Your task to perform on an android device: open app "Microsoft Excel" Image 0: 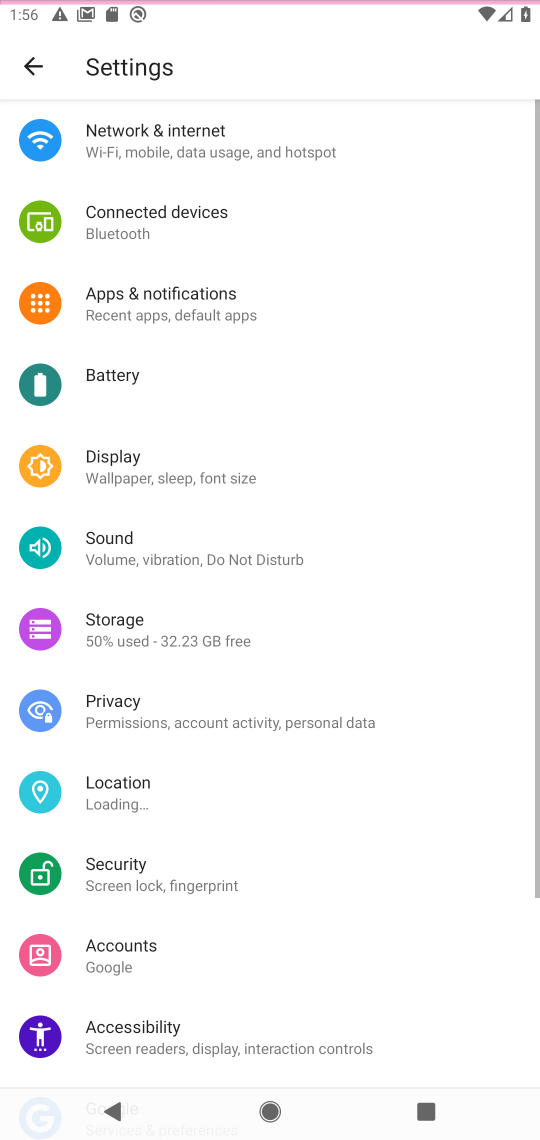
Step 0: click (312, 200)
Your task to perform on an android device: open app "Microsoft Excel" Image 1: 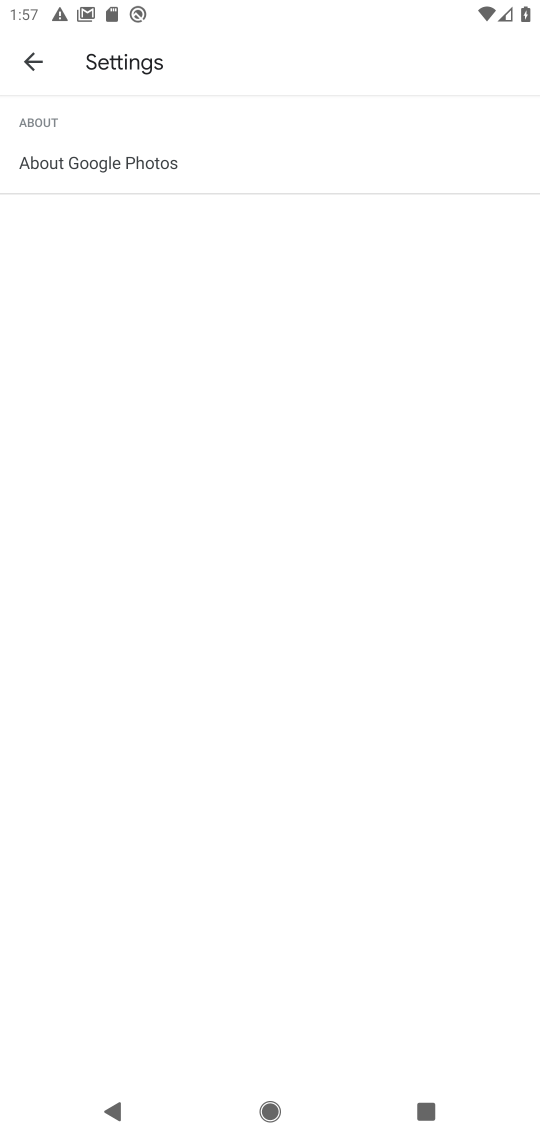
Step 1: press home button
Your task to perform on an android device: open app "Microsoft Excel" Image 2: 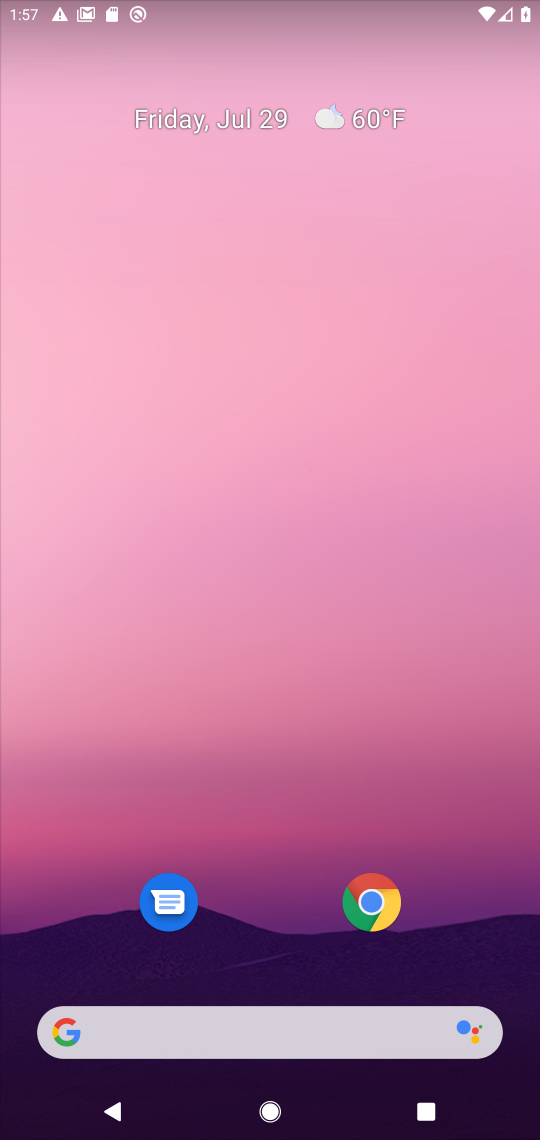
Step 2: drag from (268, 1017) to (277, 249)
Your task to perform on an android device: open app "Microsoft Excel" Image 3: 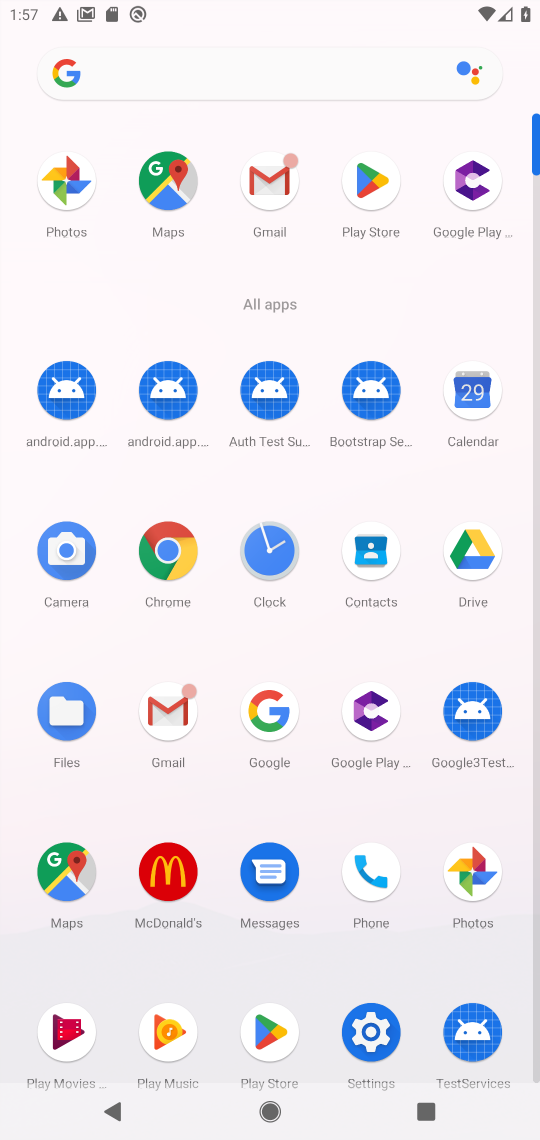
Step 3: click (370, 181)
Your task to perform on an android device: open app "Microsoft Excel" Image 4: 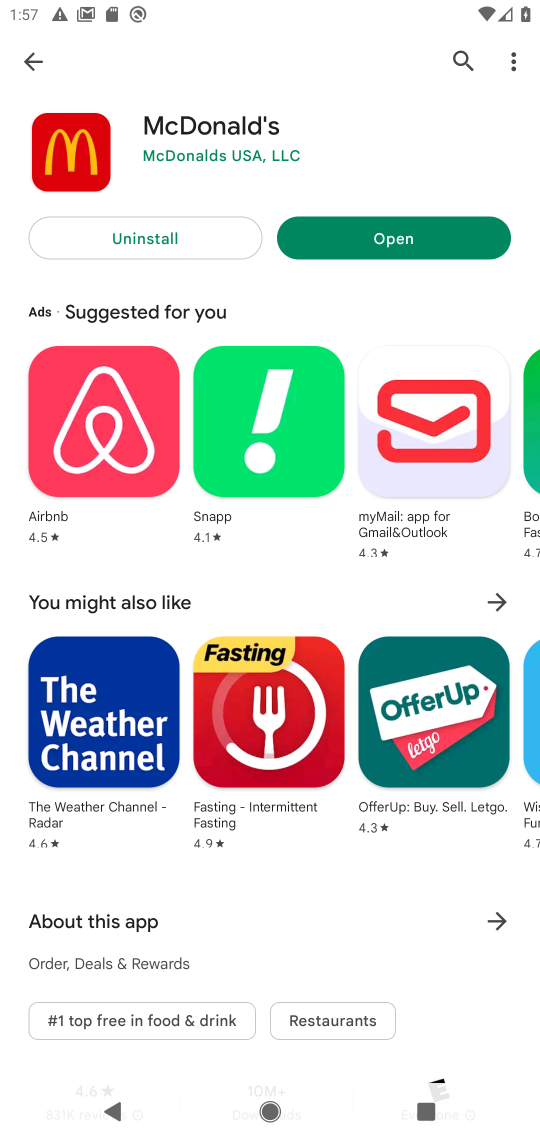
Step 4: click (36, 50)
Your task to perform on an android device: open app "Microsoft Excel" Image 5: 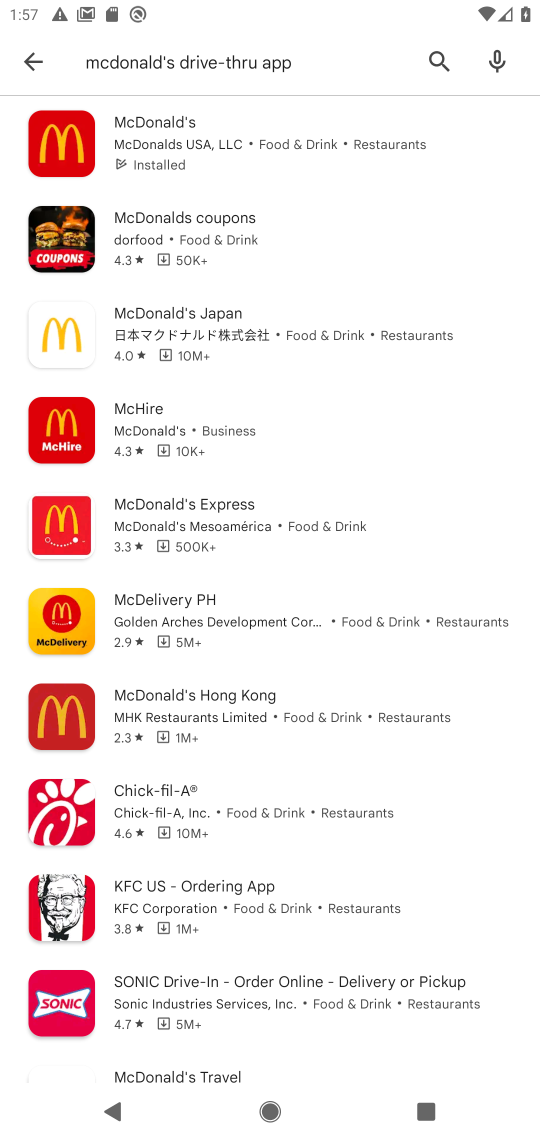
Step 5: type "Microsoft Excel"
Your task to perform on an android device: open app "Microsoft Excel" Image 6: 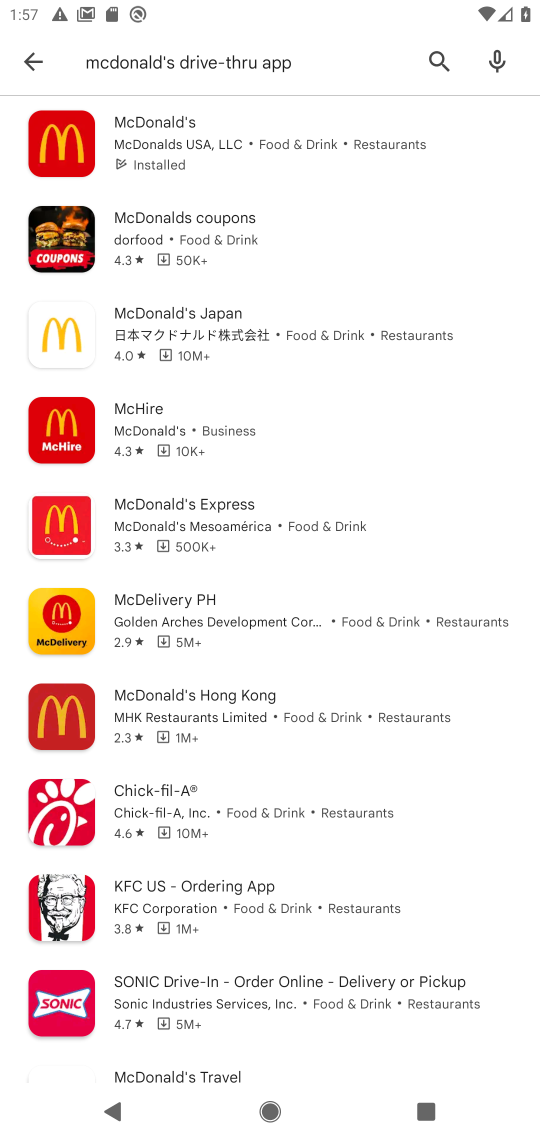
Step 6: click (38, 63)
Your task to perform on an android device: open app "Microsoft Excel" Image 7: 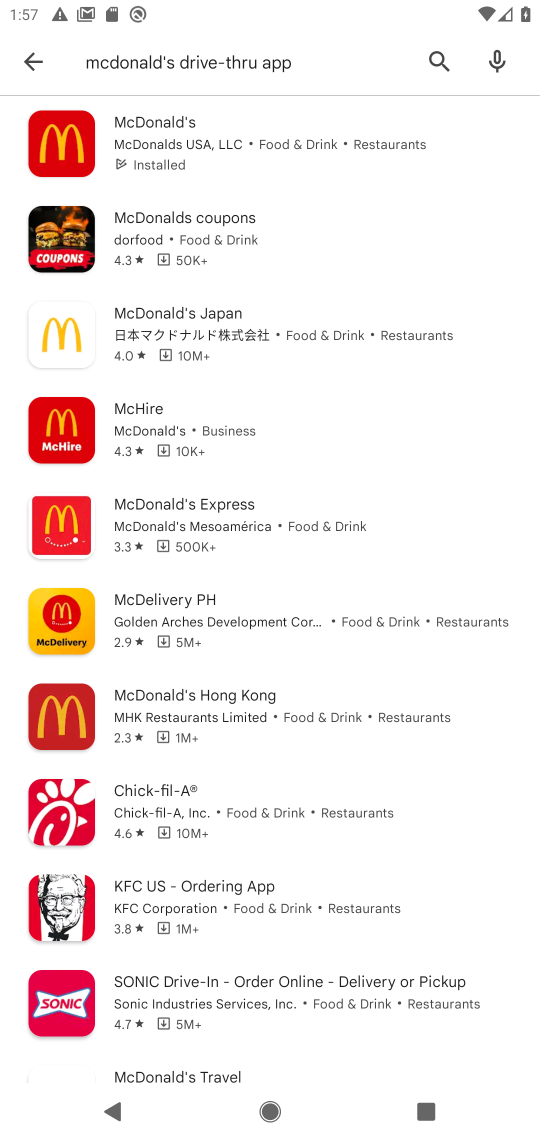
Step 7: click (30, 61)
Your task to perform on an android device: open app "Microsoft Excel" Image 8: 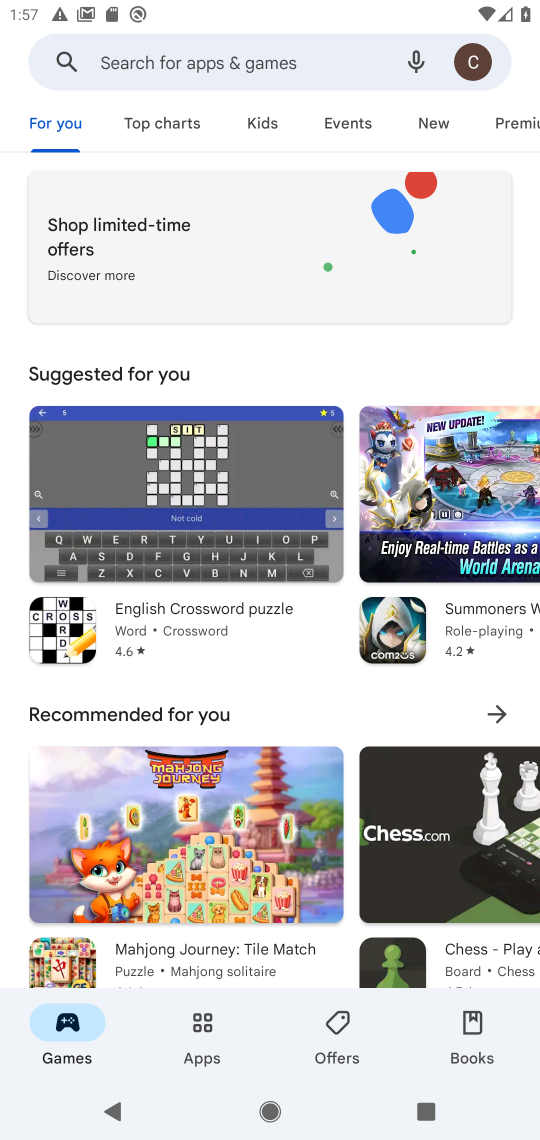
Step 8: click (176, 65)
Your task to perform on an android device: open app "Microsoft Excel" Image 9: 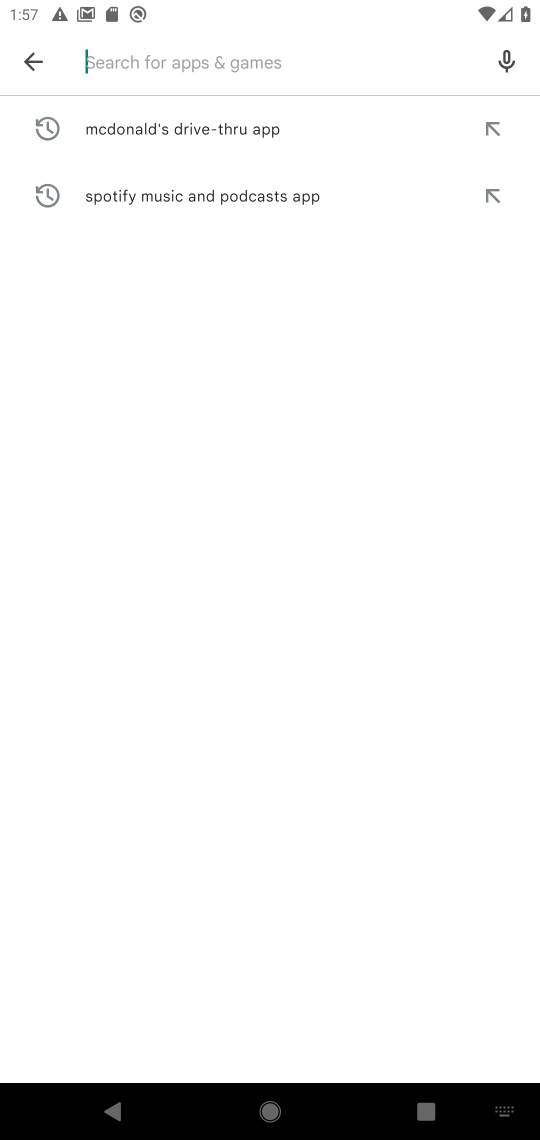
Step 9: type "Microsoft Excel"
Your task to perform on an android device: open app "Microsoft Excel" Image 10: 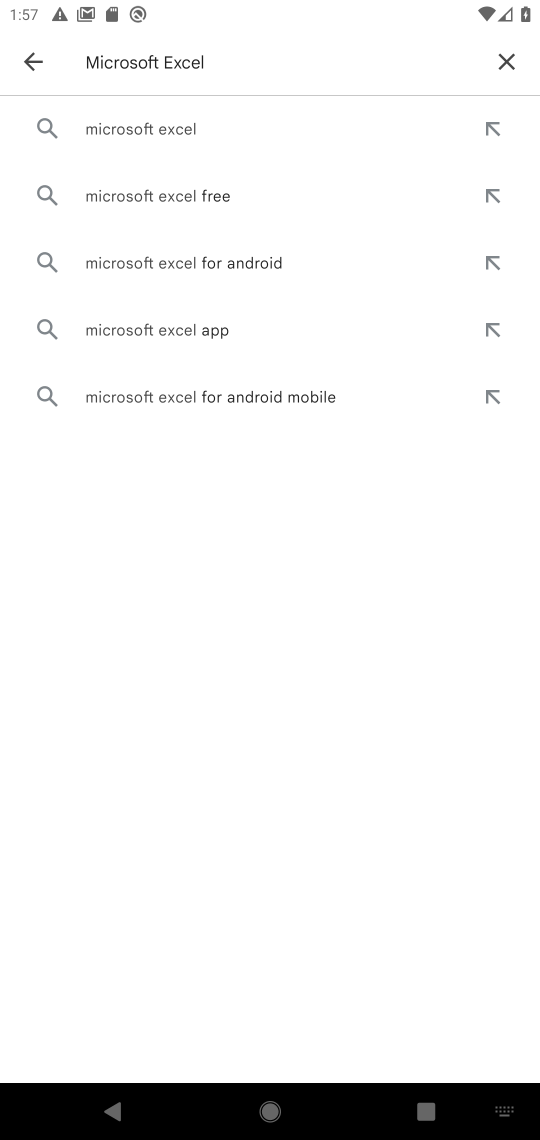
Step 10: click (132, 133)
Your task to perform on an android device: open app "Microsoft Excel" Image 11: 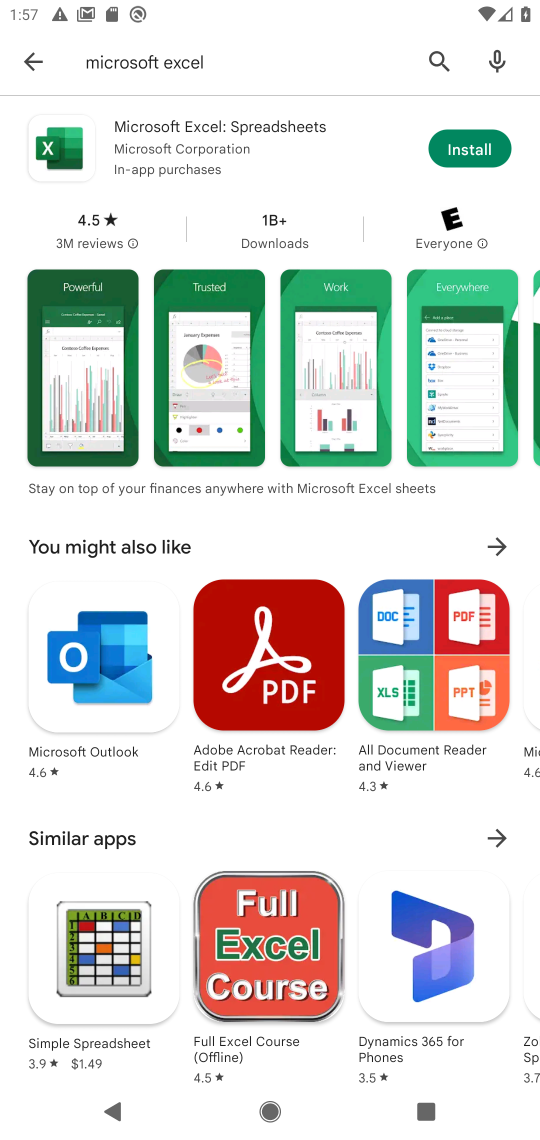
Step 11: click (474, 142)
Your task to perform on an android device: open app "Microsoft Excel" Image 12: 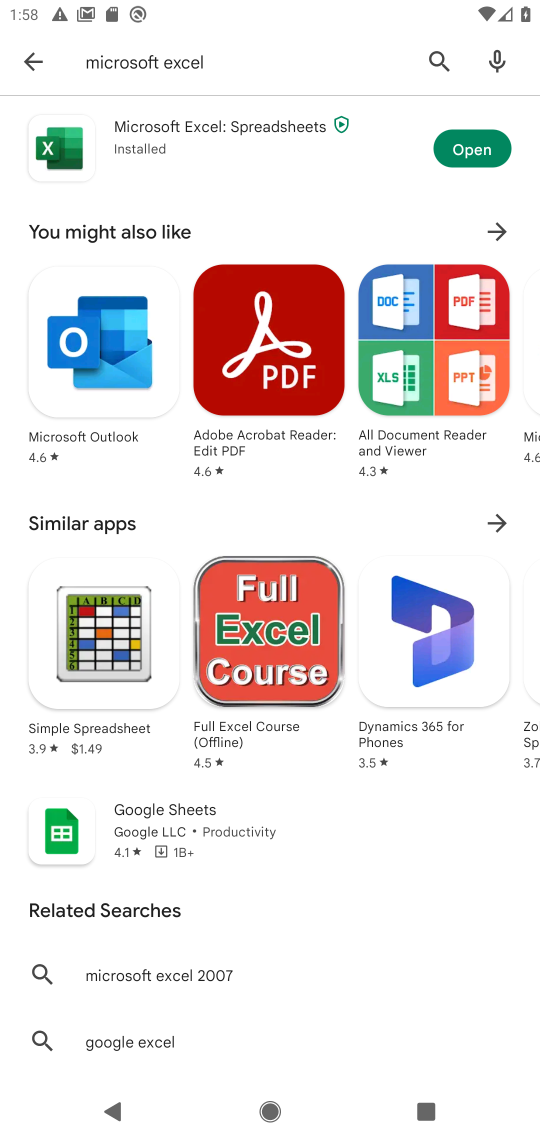
Step 12: click (450, 155)
Your task to perform on an android device: open app "Microsoft Excel" Image 13: 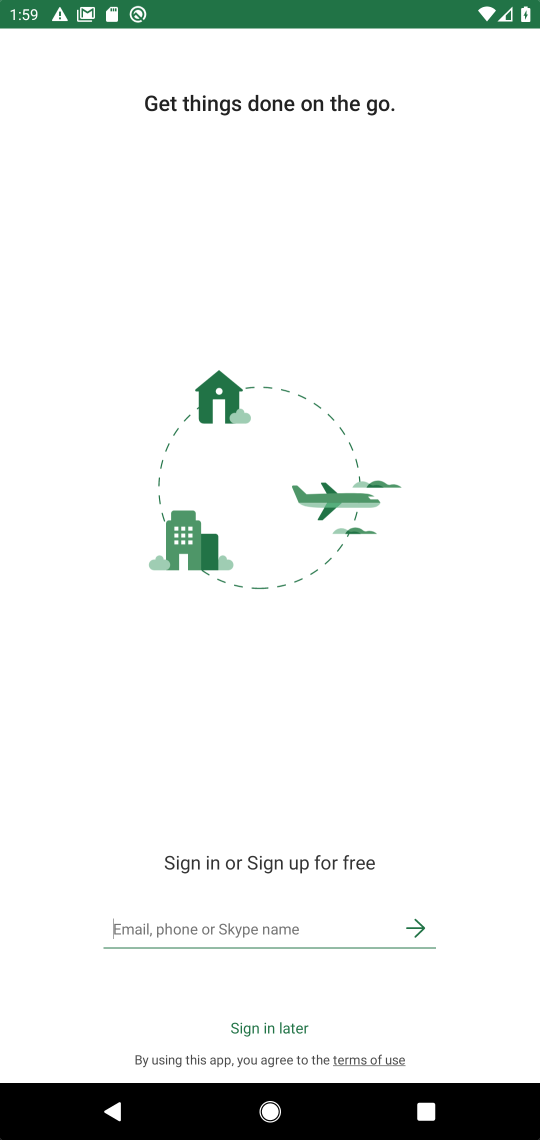
Step 13: task complete